Your task to perform on an android device: open sync settings in chrome Image 0: 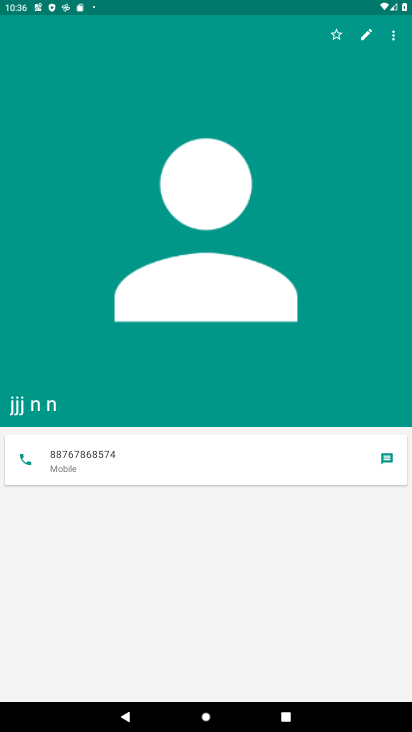
Step 0: press home button
Your task to perform on an android device: open sync settings in chrome Image 1: 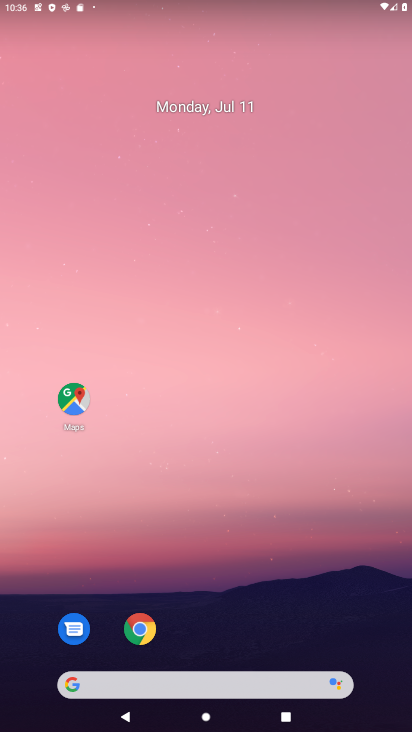
Step 1: click (139, 631)
Your task to perform on an android device: open sync settings in chrome Image 2: 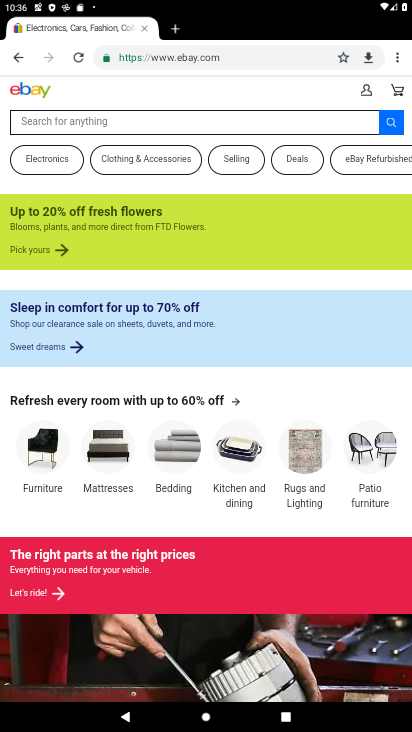
Step 2: click (403, 66)
Your task to perform on an android device: open sync settings in chrome Image 3: 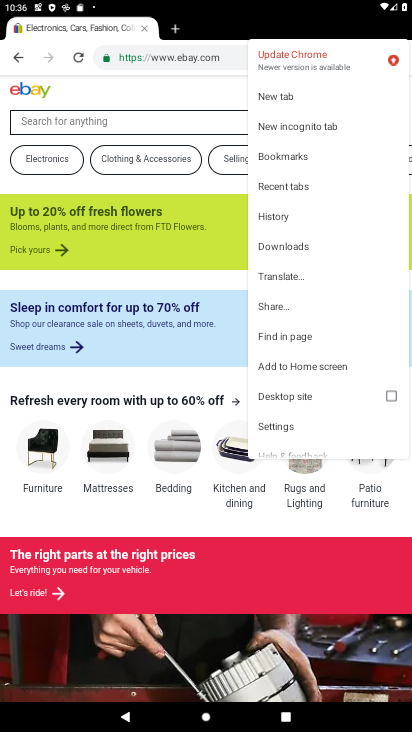
Step 3: click (294, 430)
Your task to perform on an android device: open sync settings in chrome Image 4: 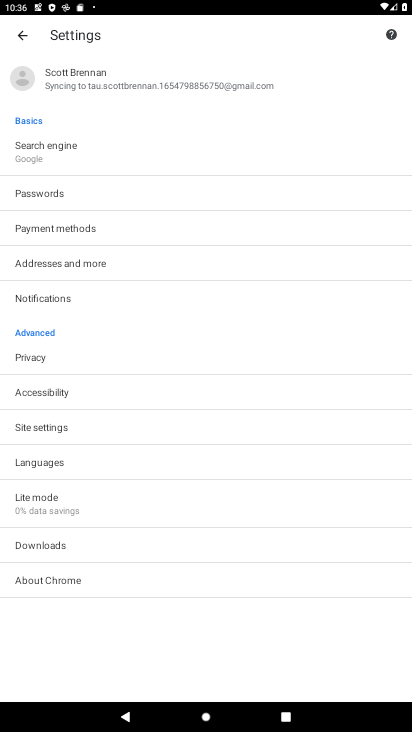
Step 4: click (190, 71)
Your task to perform on an android device: open sync settings in chrome Image 5: 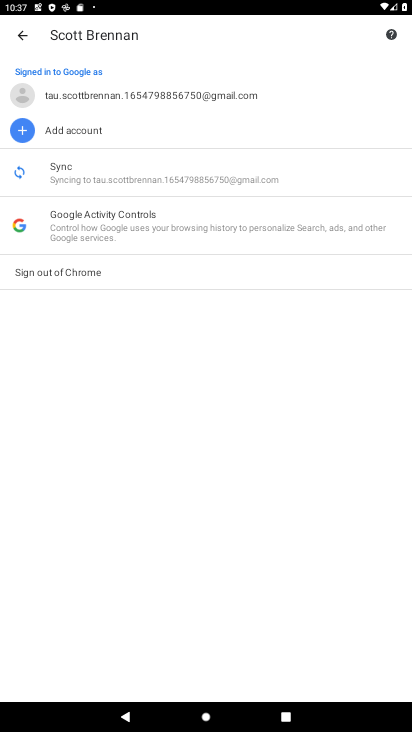
Step 5: click (210, 109)
Your task to perform on an android device: open sync settings in chrome Image 6: 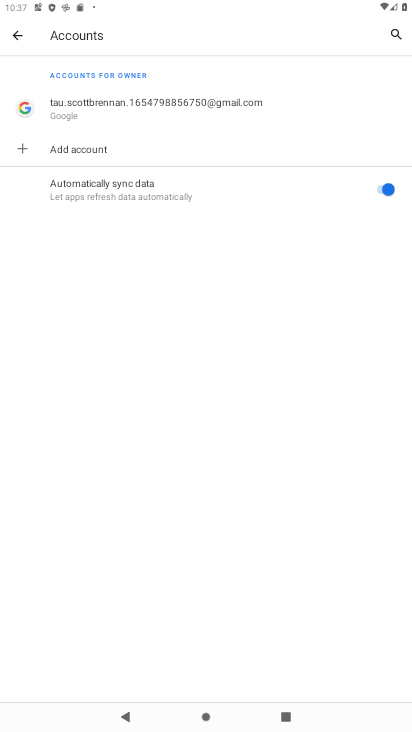
Step 6: task complete